Your task to perform on an android device: set the stopwatch Image 0: 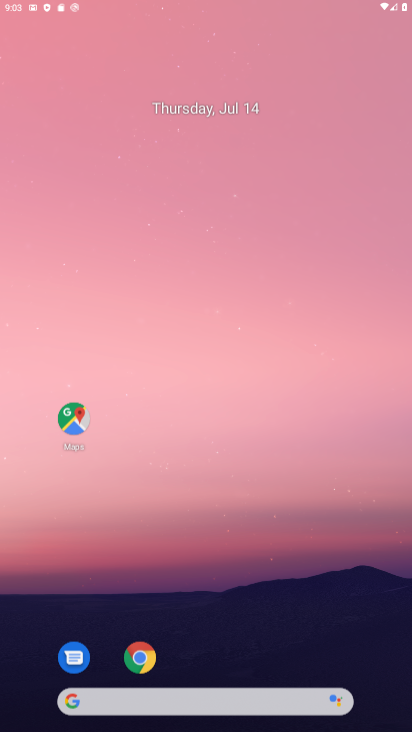
Step 0: press home button
Your task to perform on an android device: set the stopwatch Image 1: 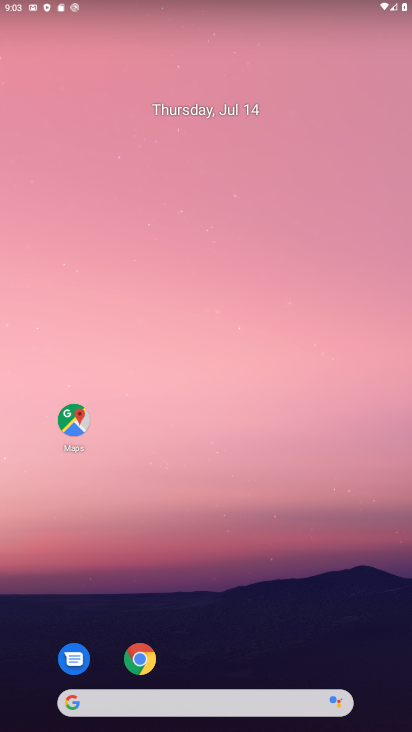
Step 1: drag from (229, 593) to (229, 351)
Your task to perform on an android device: set the stopwatch Image 2: 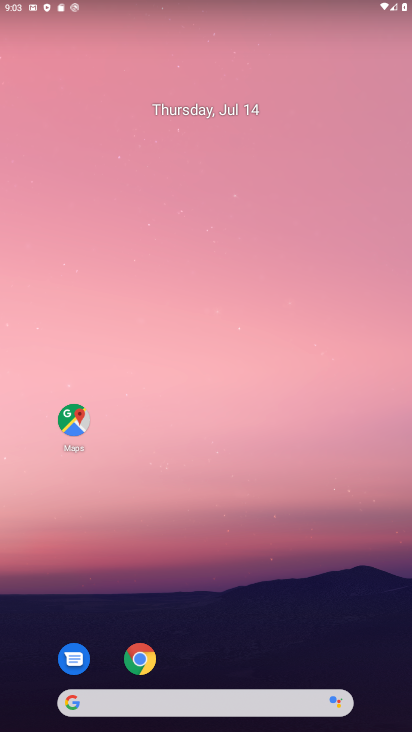
Step 2: drag from (269, 662) to (263, 330)
Your task to perform on an android device: set the stopwatch Image 3: 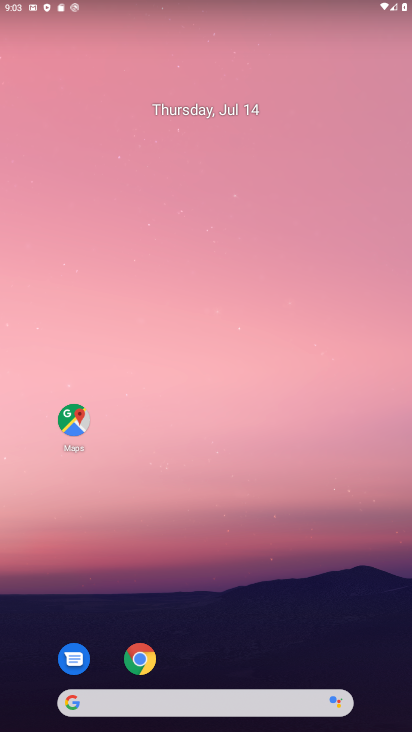
Step 3: drag from (245, 645) to (241, 278)
Your task to perform on an android device: set the stopwatch Image 4: 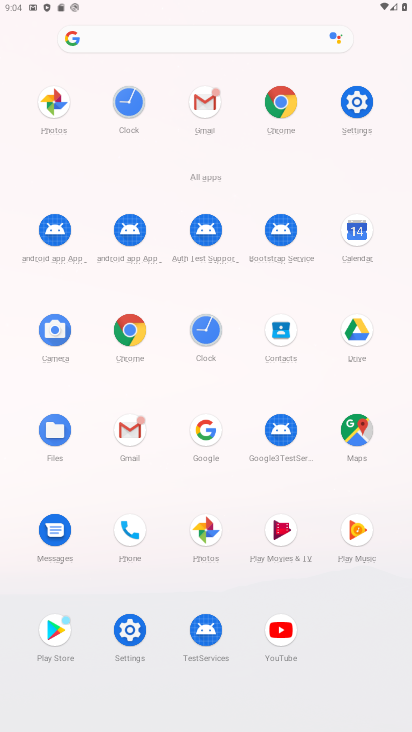
Step 4: click (210, 331)
Your task to perform on an android device: set the stopwatch Image 5: 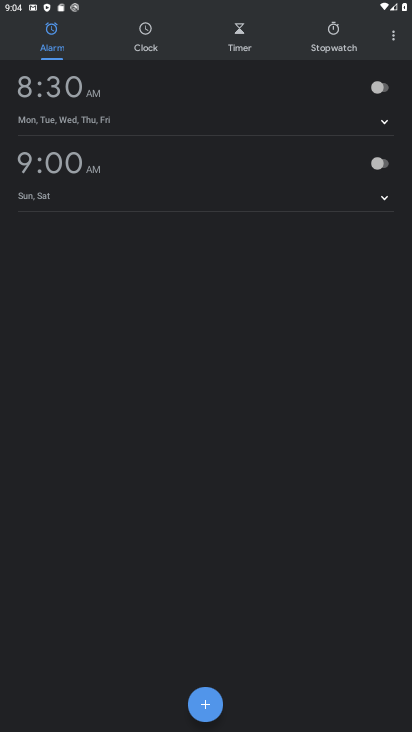
Step 5: click (337, 31)
Your task to perform on an android device: set the stopwatch Image 6: 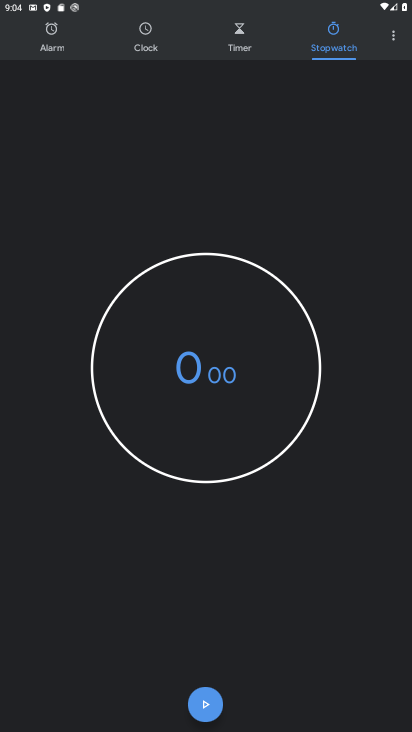
Step 6: click (202, 368)
Your task to perform on an android device: set the stopwatch Image 7: 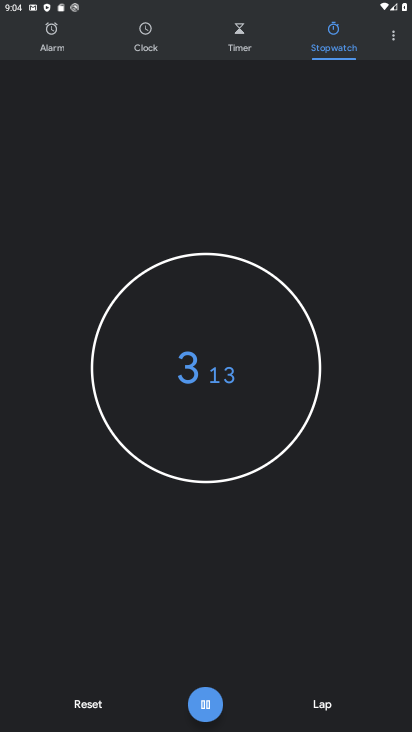
Step 7: task complete